Your task to perform on an android device: Open Google Chrome and click the shortcut for Amazon.com Image 0: 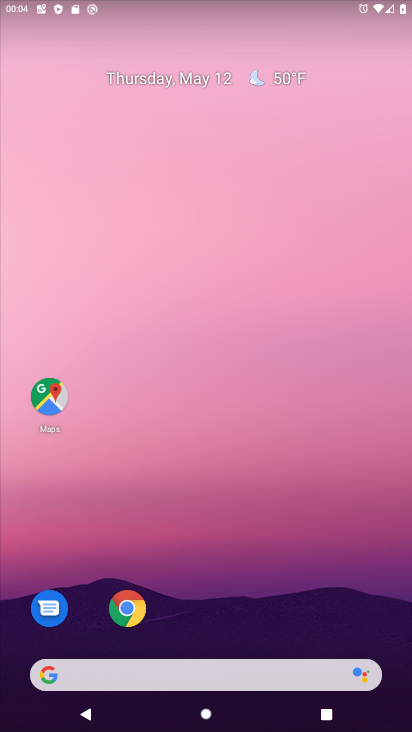
Step 0: click (125, 608)
Your task to perform on an android device: Open Google Chrome and click the shortcut for Amazon.com Image 1: 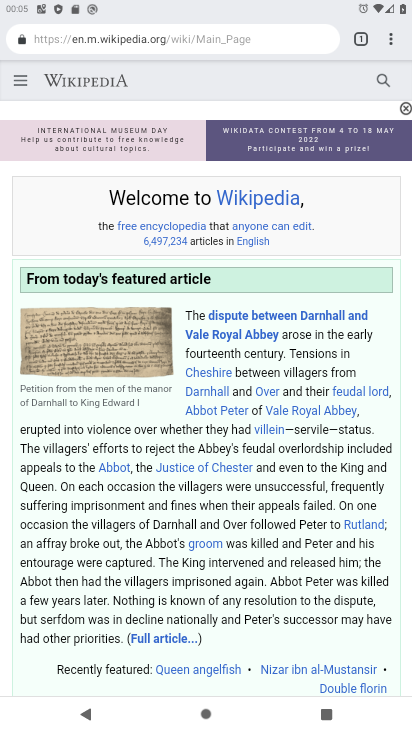
Step 1: click (290, 34)
Your task to perform on an android device: Open Google Chrome and click the shortcut for Amazon.com Image 2: 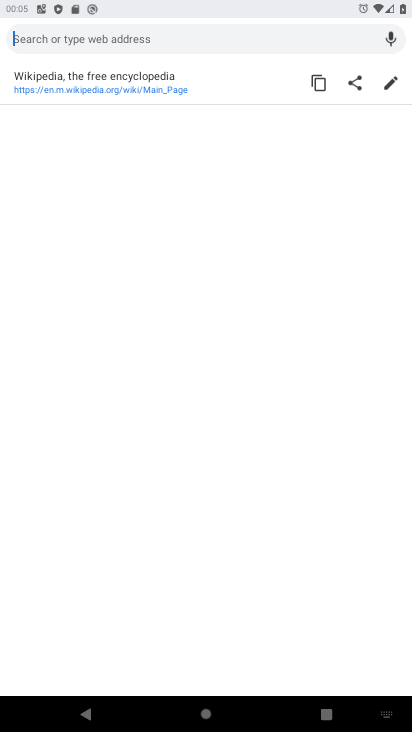
Step 2: type "Amazon.com"
Your task to perform on an android device: Open Google Chrome and click the shortcut for Amazon.com Image 3: 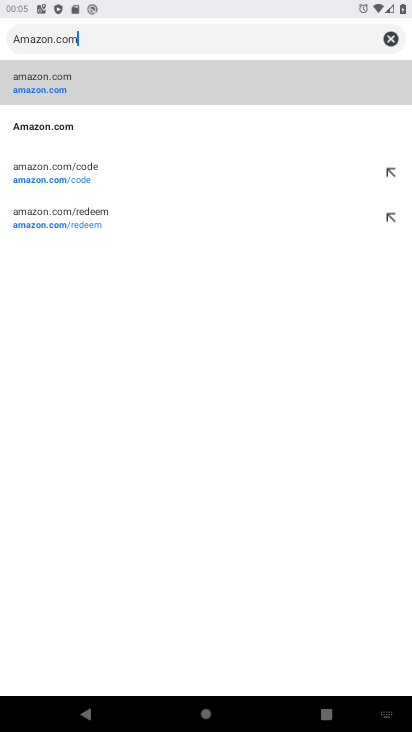
Step 3: click (25, 120)
Your task to perform on an android device: Open Google Chrome and click the shortcut for Amazon.com Image 4: 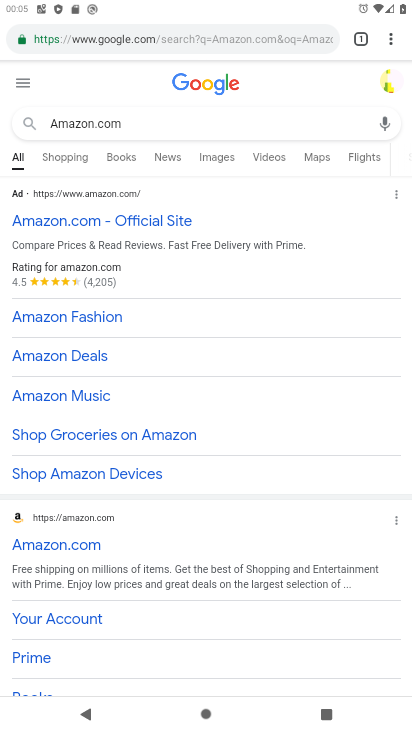
Step 4: click (60, 220)
Your task to perform on an android device: Open Google Chrome and click the shortcut for Amazon.com Image 5: 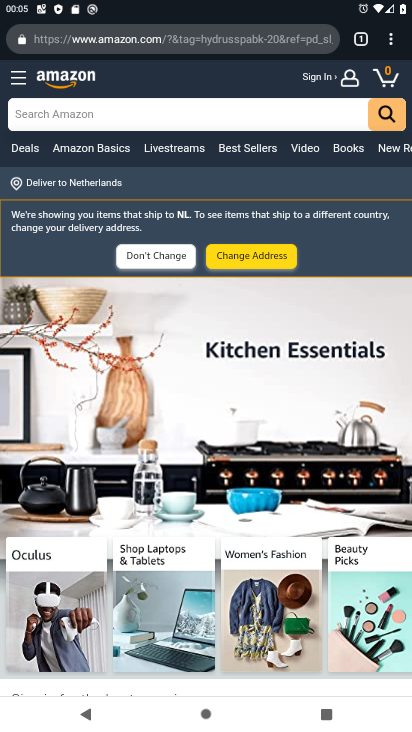
Step 5: click (392, 39)
Your task to perform on an android device: Open Google Chrome and click the shortcut for Amazon.com Image 6: 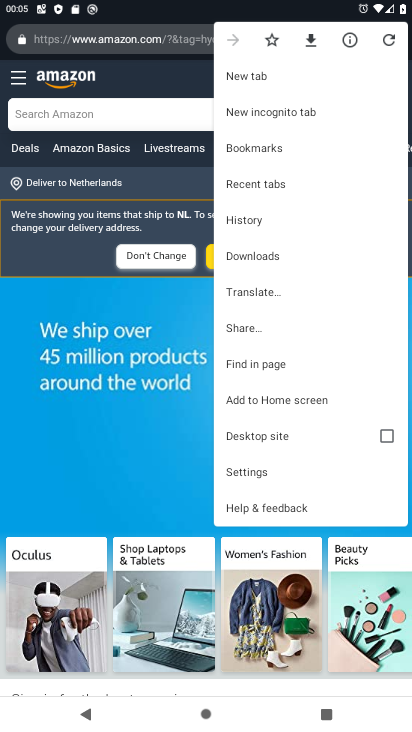
Step 6: click (269, 397)
Your task to perform on an android device: Open Google Chrome and click the shortcut for Amazon.com Image 7: 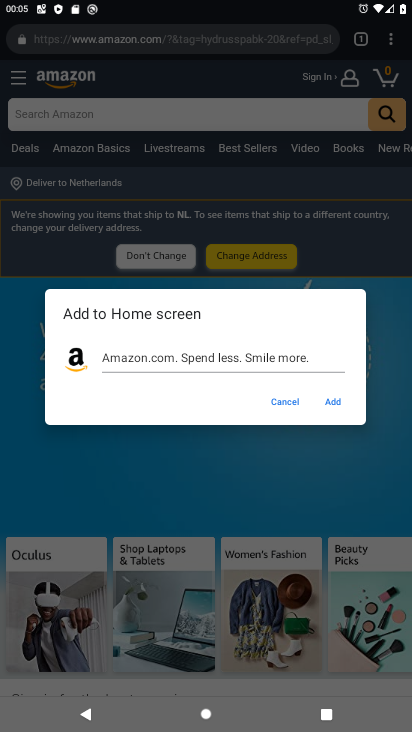
Step 7: click (330, 397)
Your task to perform on an android device: Open Google Chrome and click the shortcut for Amazon.com Image 8: 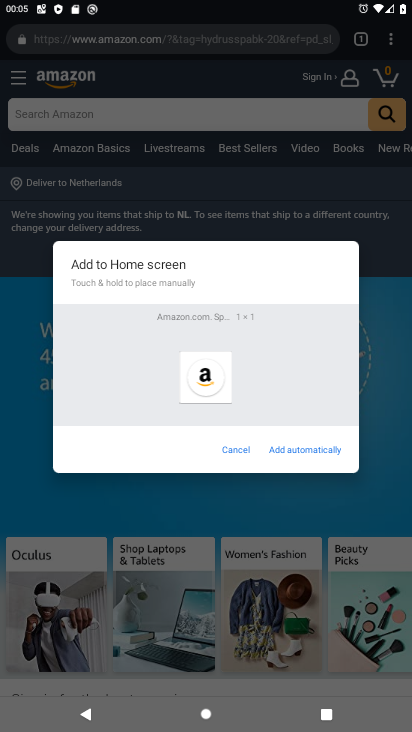
Step 8: click (244, 452)
Your task to perform on an android device: Open Google Chrome and click the shortcut for Amazon.com Image 9: 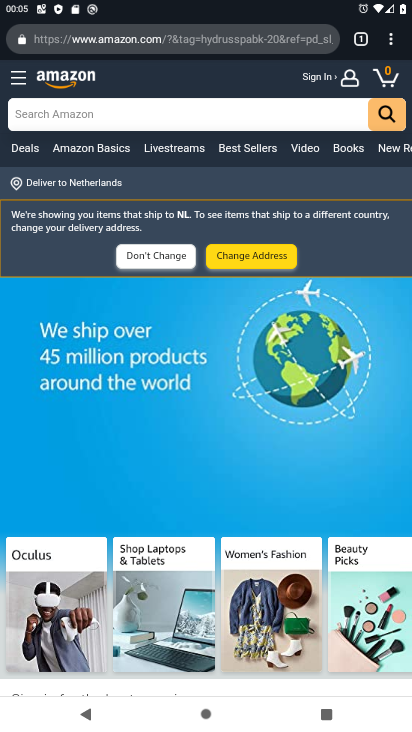
Step 9: task complete